Your task to perform on an android device: choose inbox layout in the gmail app Image 0: 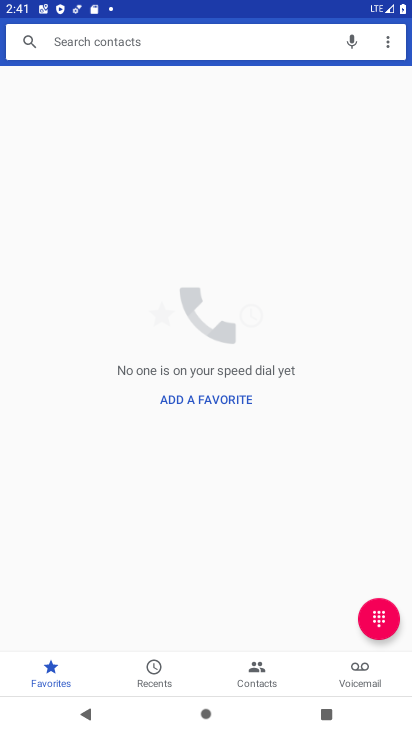
Step 0: press home button
Your task to perform on an android device: choose inbox layout in the gmail app Image 1: 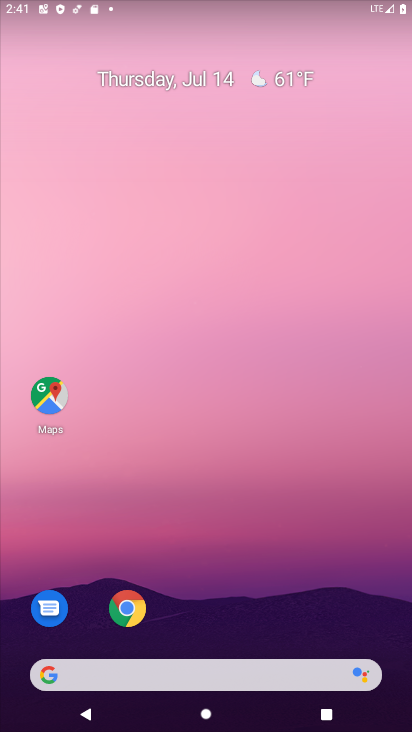
Step 1: drag from (235, 666) to (249, 264)
Your task to perform on an android device: choose inbox layout in the gmail app Image 2: 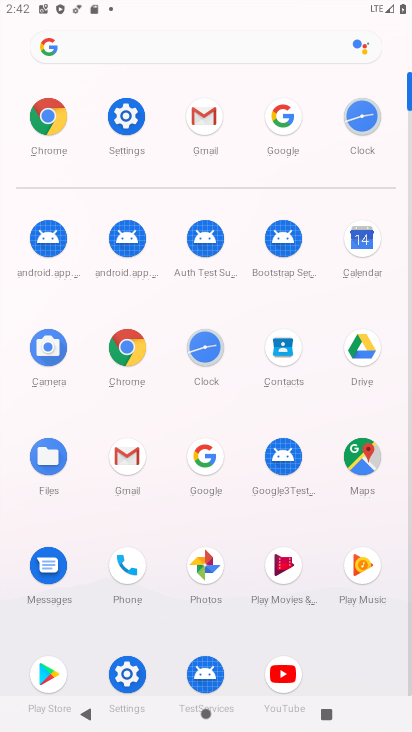
Step 2: click (203, 123)
Your task to perform on an android device: choose inbox layout in the gmail app Image 3: 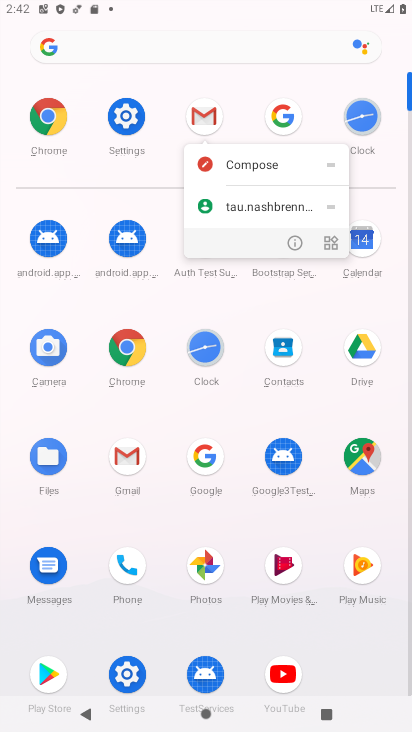
Step 3: click (203, 116)
Your task to perform on an android device: choose inbox layout in the gmail app Image 4: 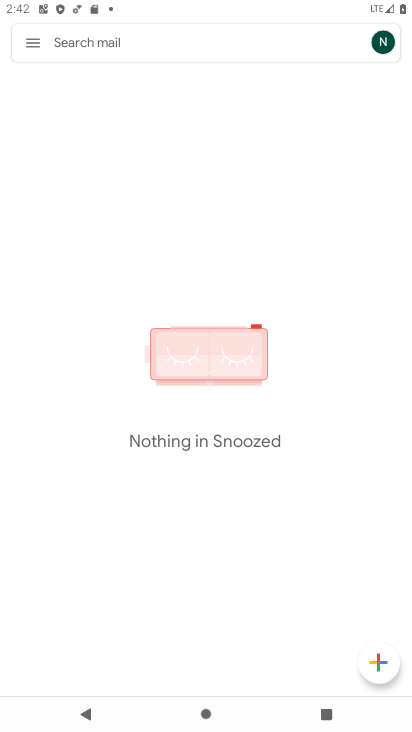
Step 4: click (40, 40)
Your task to perform on an android device: choose inbox layout in the gmail app Image 5: 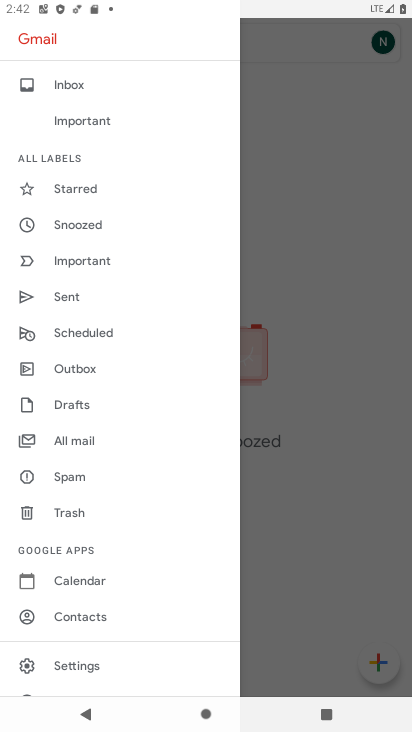
Step 5: click (61, 662)
Your task to perform on an android device: choose inbox layout in the gmail app Image 6: 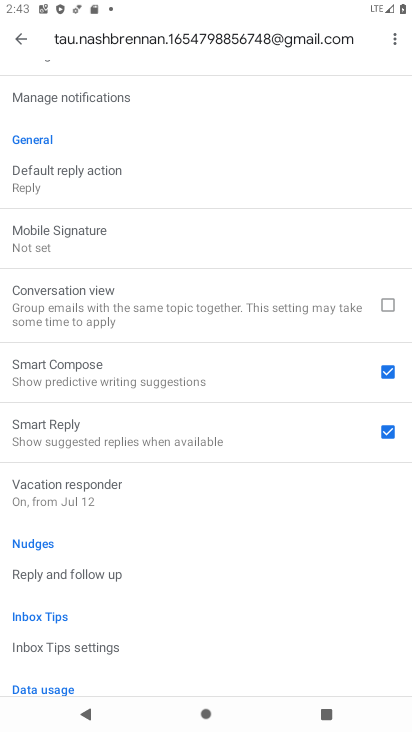
Step 6: drag from (71, 144) to (59, 475)
Your task to perform on an android device: choose inbox layout in the gmail app Image 7: 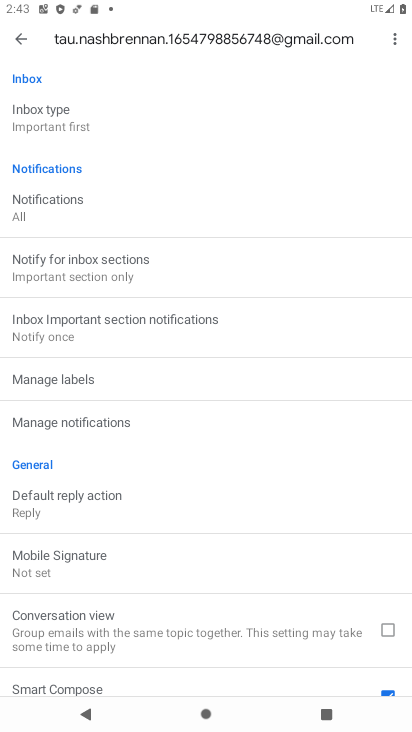
Step 7: click (41, 124)
Your task to perform on an android device: choose inbox layout in the gmail app Image 8: 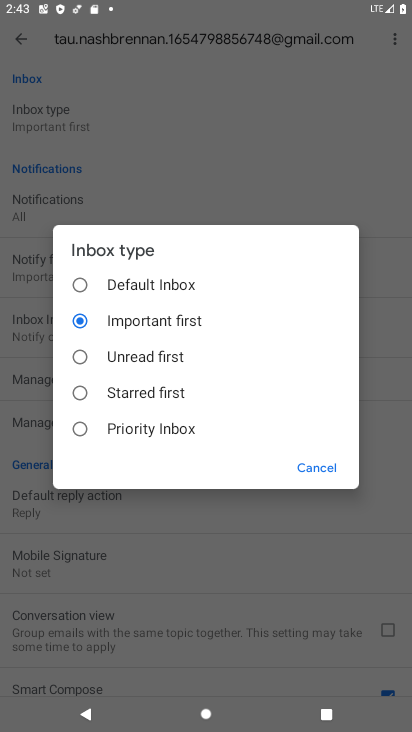
Step 8: click (124, 433)
Your task to perform on an android device: choose inbox layout in the gmail app Image 9: 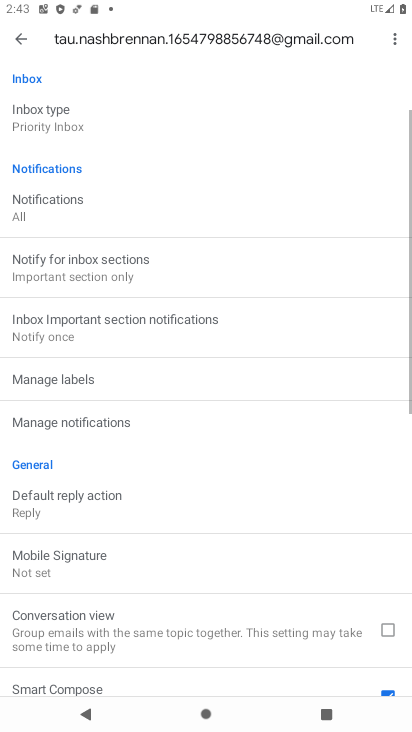
Step 9: task complete